Your task to perform on an android device: toggle translation in the chrome app Image 0: 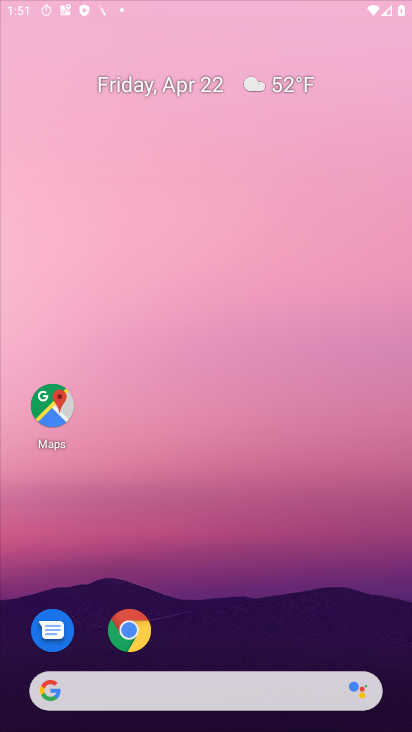
Step 0: click (303, 295)
Your task to perform on an android device: toggle translation in the chrome app Image 1: 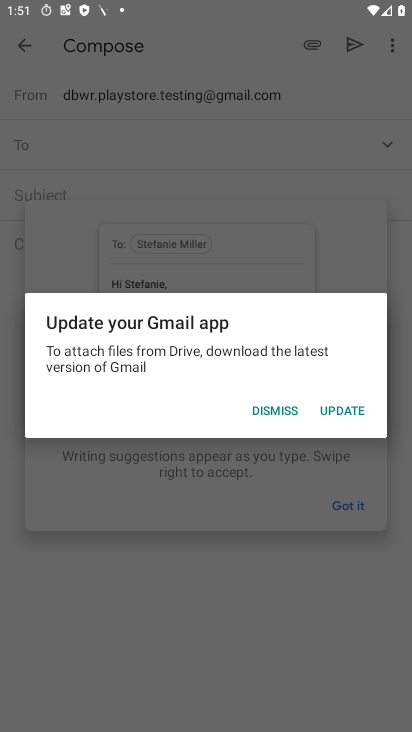
Step 1: press home button
Your task to perform on an android device: toggle translation in the chrome app Image 2: 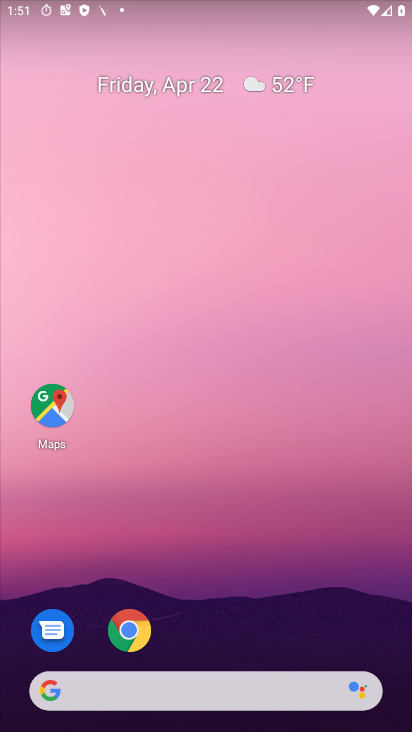
Step 2: click (129, 616)
Your task to perform on an android device: toggle translation in the chrome app Image 3: 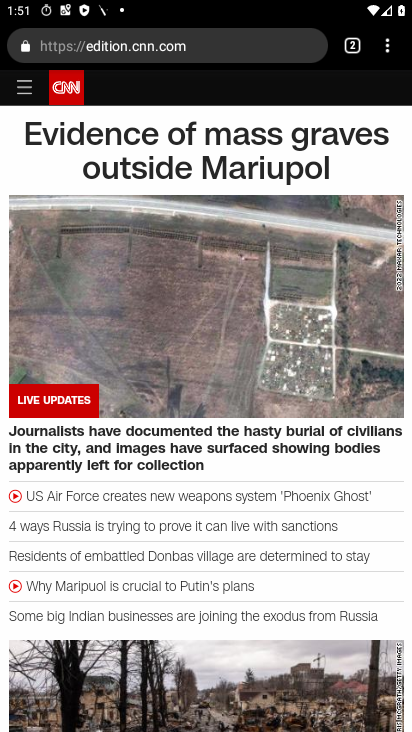
Step 3: click (390, 47)
Your task to perform on an android device: toggle translation in the chrome app Image 4: 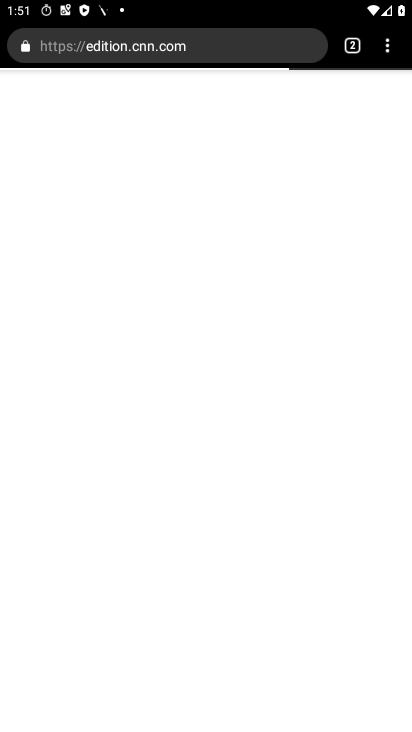
Step 4: click (390, 47)
Your task to perform on an android device: toggle translation in the chrome app Image 5: 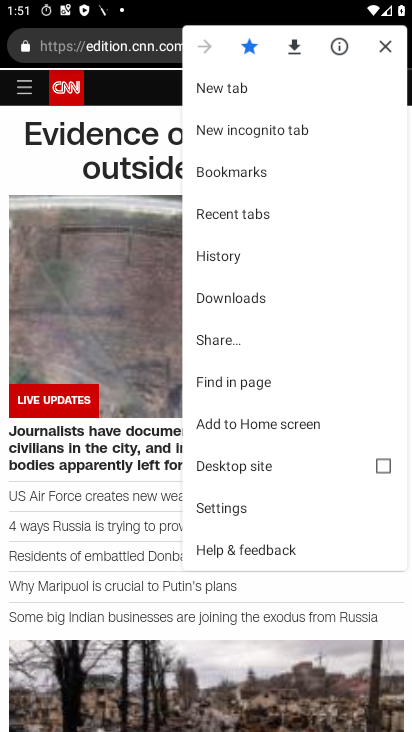
Step 5: click (206, 501)
Your task to perform on an android device: toggle translation in the chrome app Image 6: 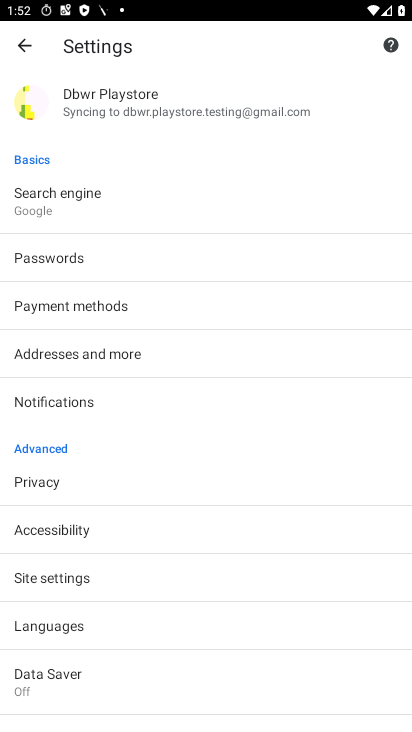
Step 6: click (126, 628)
Your task to perform on an android device: toggle translation in the chrome app Image 7: 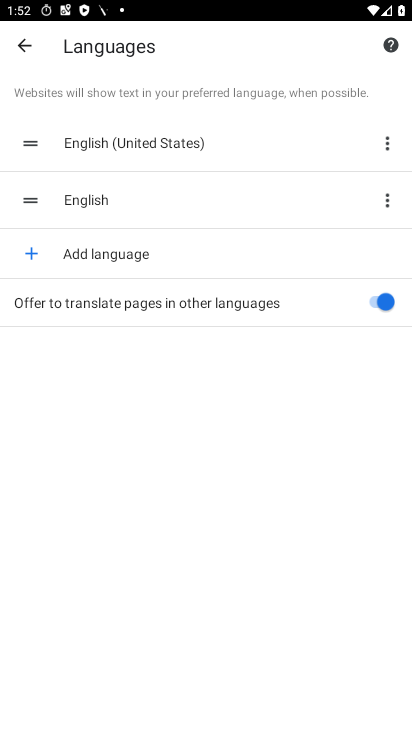
Step 7: click (372, 302)
Your task to perform on an android device: toggle translation in the chrome app Image 8: 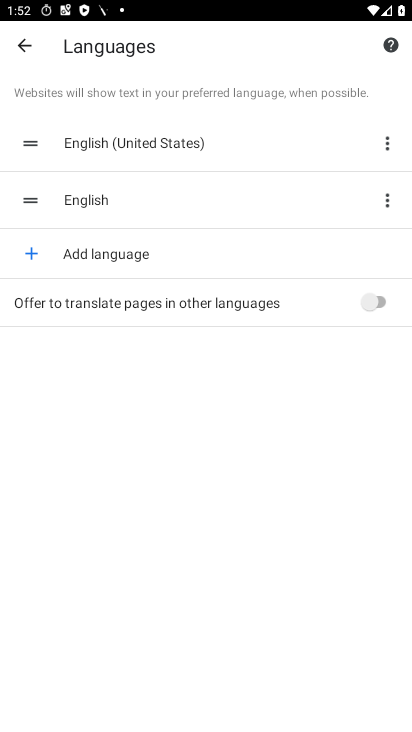
Step 8: task complete